Your task to perform on an android device: Clear the shopping cart on walmart. Image 0: 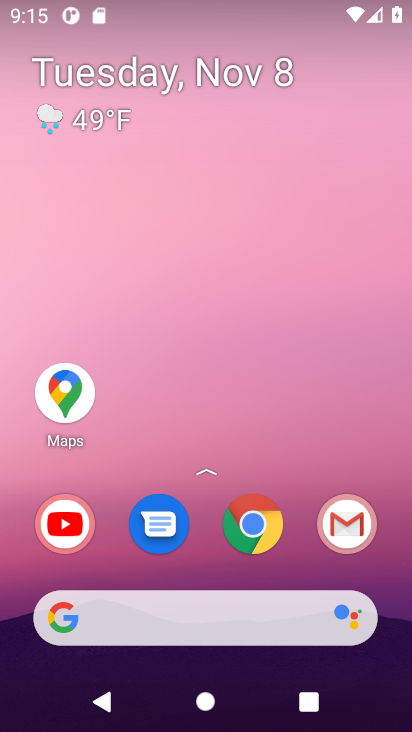
Step 0: click (259, 514)
Your task to perform on an android device: Clear the shopping cart on walmart. Image 1: 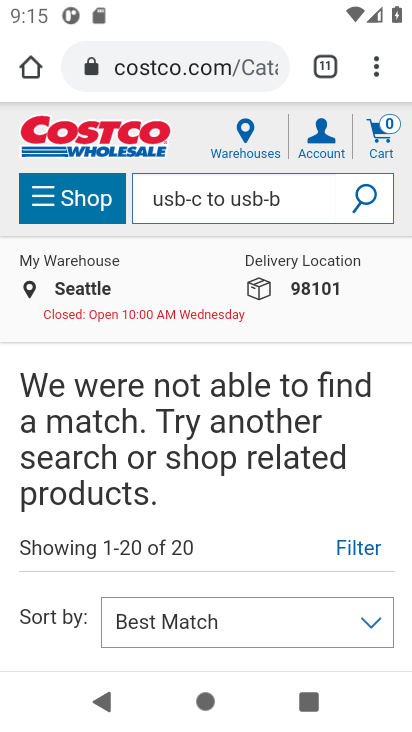
Step 1: click (207, 70)
Your task to perform on an android device: Clear the shopping cart on walmart. Image 2: 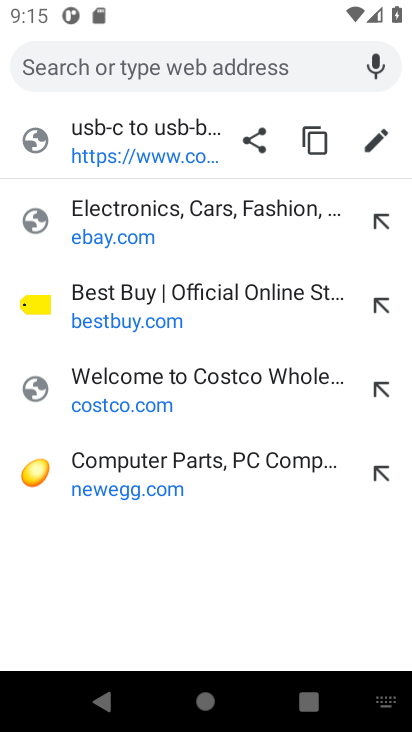
Step 2: type "walmart.com"
Your task to perform on an android device: Clear the shopping cart on walmart. Image 3: 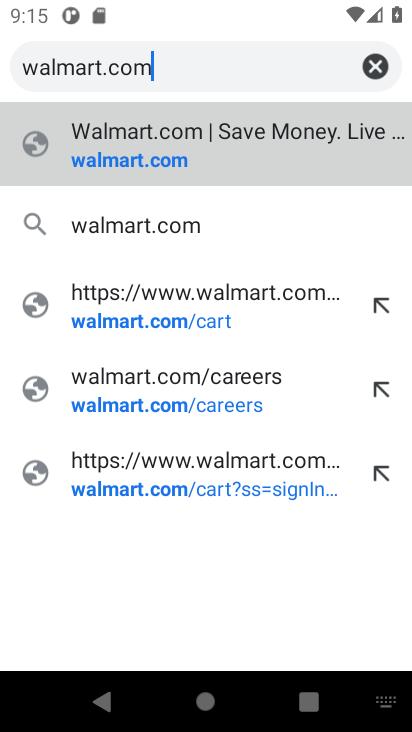
Step 3: click (144, 158)
Your task to perform on an android device: Clear the shopping cart on walmart. Image 4: 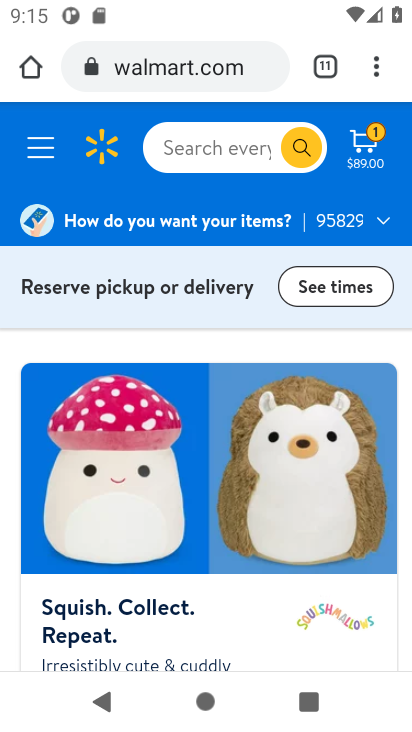
Step 4: click (371, 136)
Your task to perform on an android device: Clear the shopping cart on walmart. Image 5: 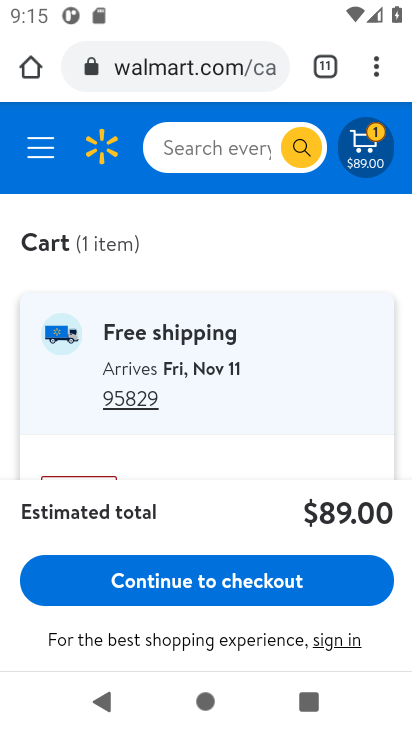
Step 5: drag from (188, 435) to (186, 215)
Your task to perform on an android device: Clear the shopping cart on walmart. Image 6: 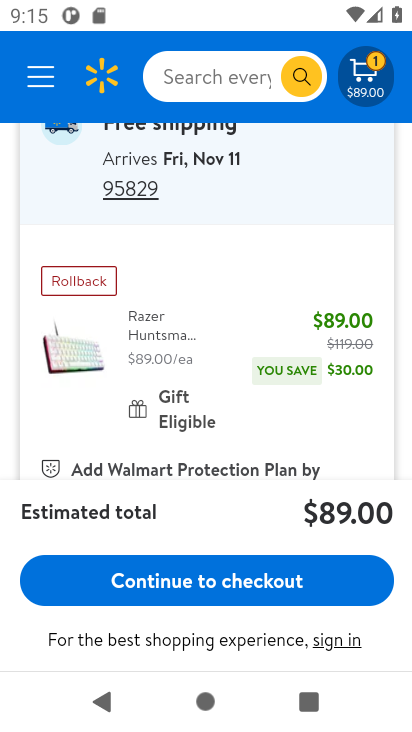
Step 6: drag from (165, 393) to (161, 205)
Your task to perform on an android device: Clear the shopping cart on walmart. Image 7: 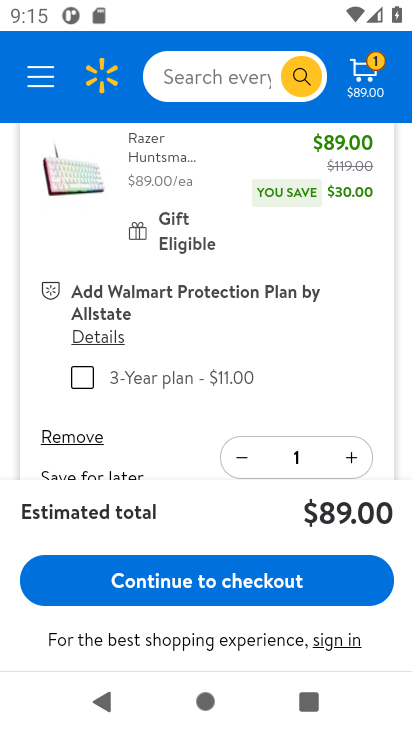
Step 7: drag from (128, 391) to (146, 240)
Your task to perform on an android device: Clear the shopping cart on walmart. Image 8: 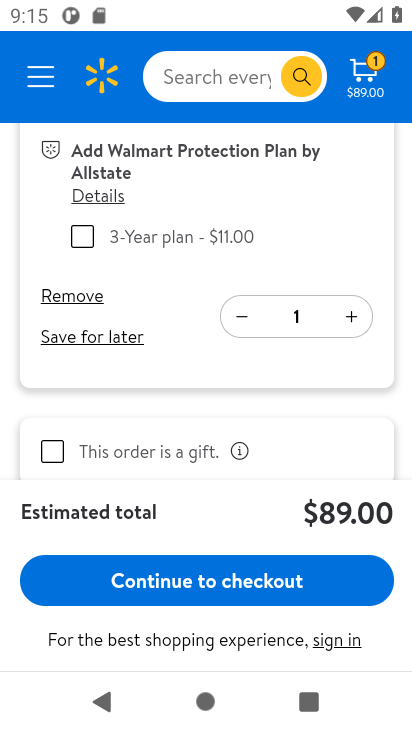
Step 8: click (75, 301)
Your task to perform on an android device: Clear the shopping cart on walmart. Image 9: 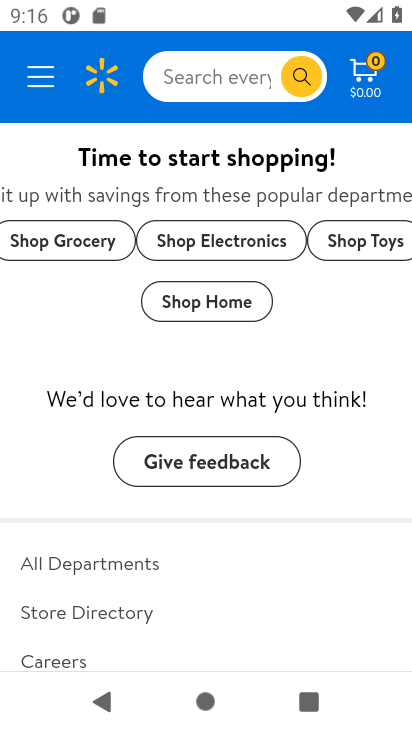
Step 9: task complete